Your task to perform on an android device: turn on bluetooth scan Image 0: 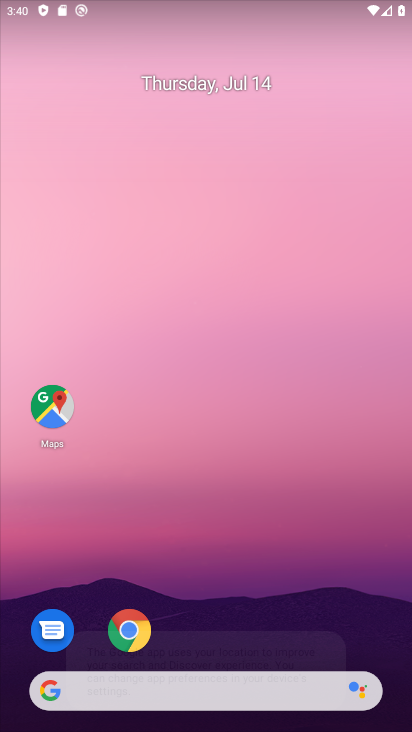
Step 0: drag from (283, 612) to (233, 218)
Your task to perform on an android device: turn on bluetooth scan Image 1: 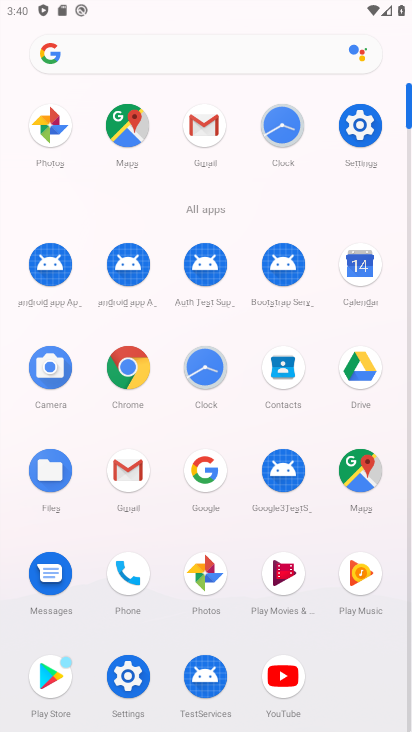
Step 1: click (358, 141)
Your task to perform on an android device: turn on bluetooth scan Image 2: 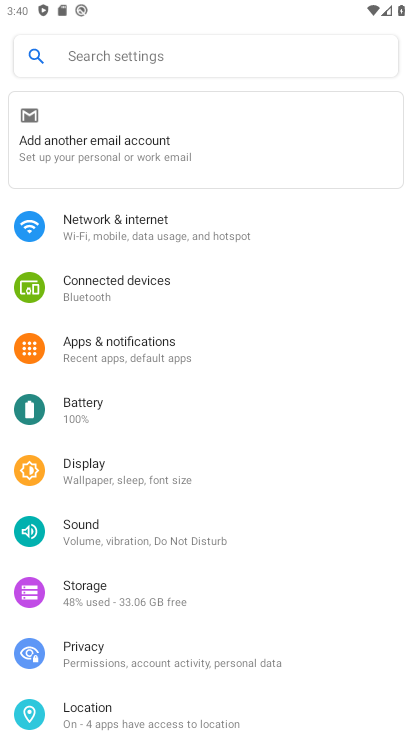
Step 2: click (139, 716)
Your task to perform on an android device: turn on bluetooth scan Image 3: 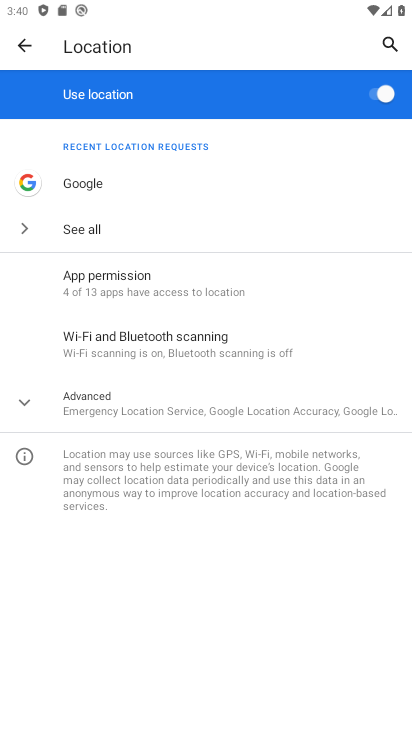
Step 3: click (222, 350)
Your task to perform on an android device: turn on bluetooth scan Image 4: 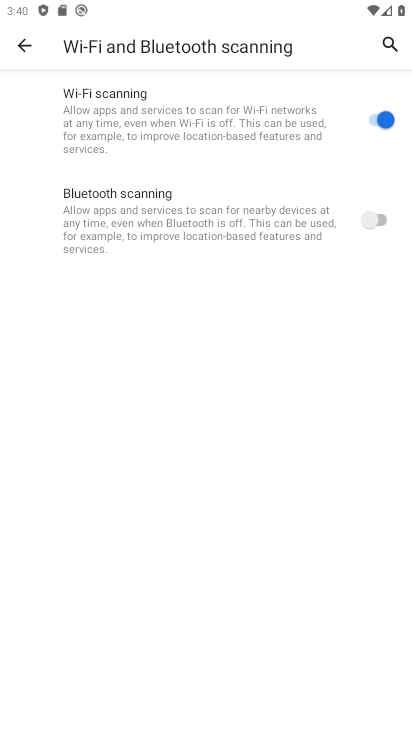
Step 4: click (371, 238)
Your task to perform on an android device: turn on bluetooth scan Image 5: 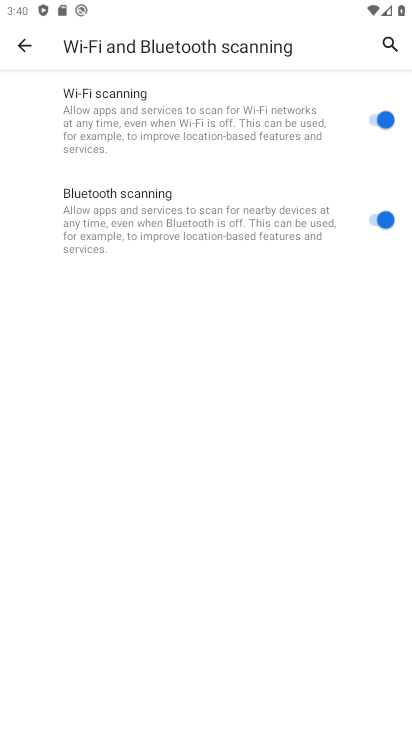
Step 5: task complete